Your task to perform on an android device: Go to location settings Image 0: 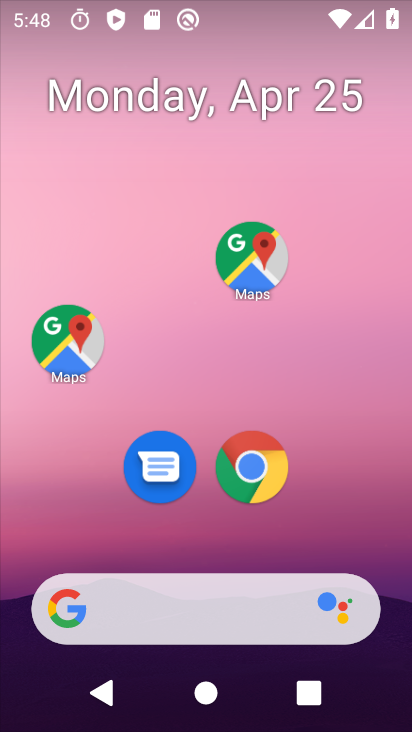
Step 0: drag from (348, 589) to (354, 0)
Your task to perform on an android device: Go to location settings Image 1: 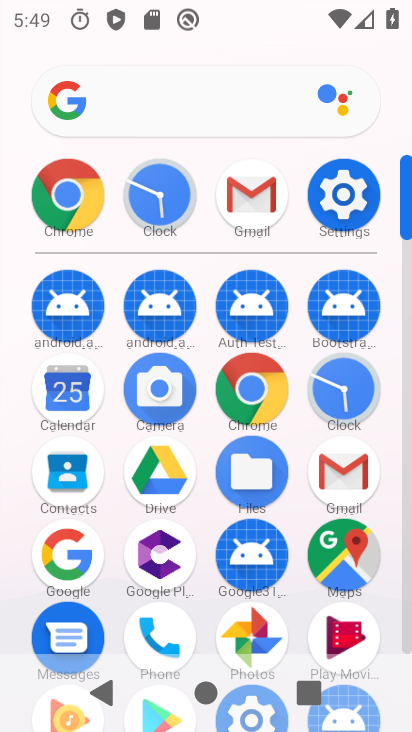
Step 1: drag from (297, 593) to (298, 168)
Your task to perform on an android device: Go to location settings Image 2: 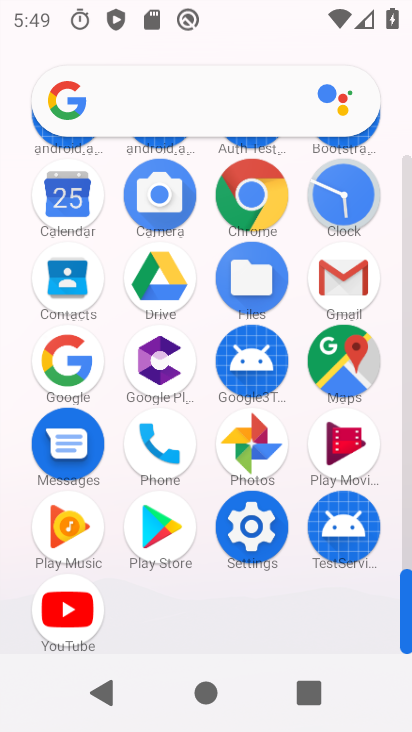
Step 2: click (240, 517)
Your task to perform on an android device: Go to location settings Image 3: 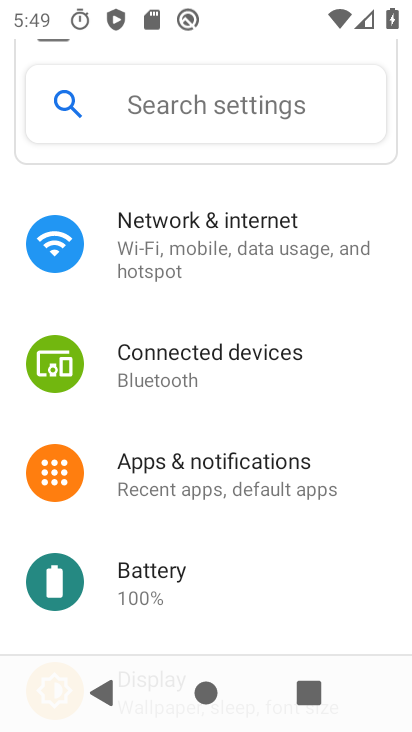
Step 3: drag from (234, 619) to (270, 317)
Your task to perform on an android device: Go to location settings Image 4: 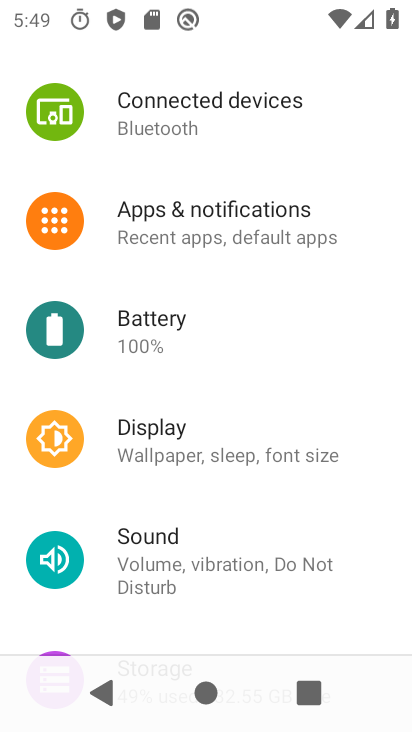
Step 4: drag from (235, 625) to (266, 117)
Your task to perform on an android device: Go to location settings Image 5: 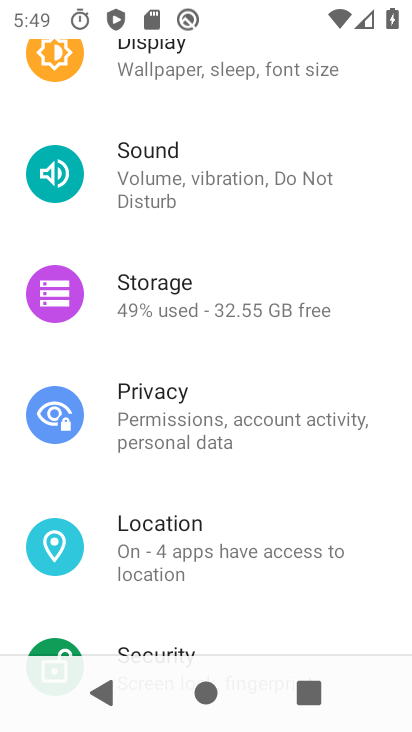
Step 5: click (281, 555)
Your task to perform on an android device: Go to location settings Image 6: 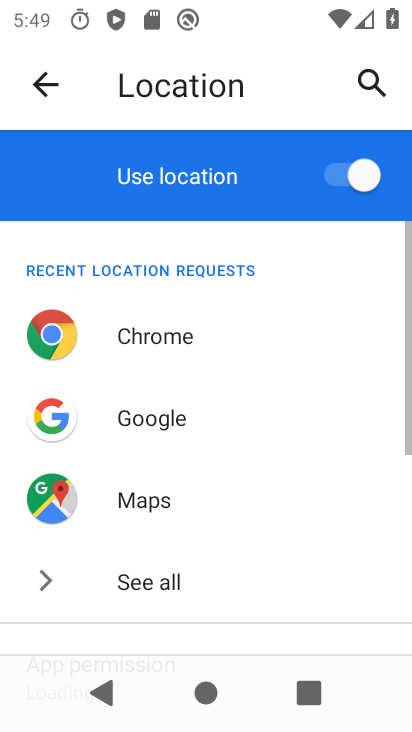
Step 6: task complete